Your task to perform on an android device: Open notification settings Image 0: 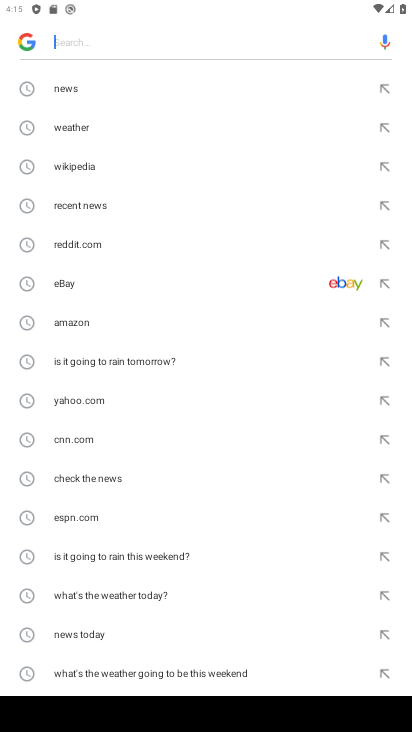
Step 0: press home button
Your task to perform on an android device: Open notification settings Image 1: 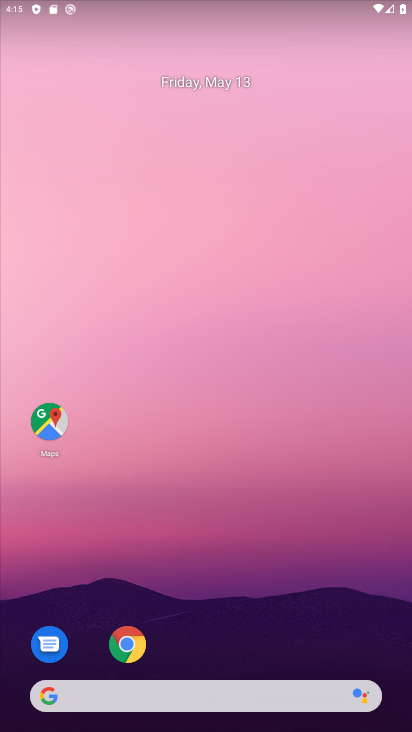
Step 1: drag from (180, 595) to (307, 119)
Your task to perform on an android device: Open notification settings Image 2: 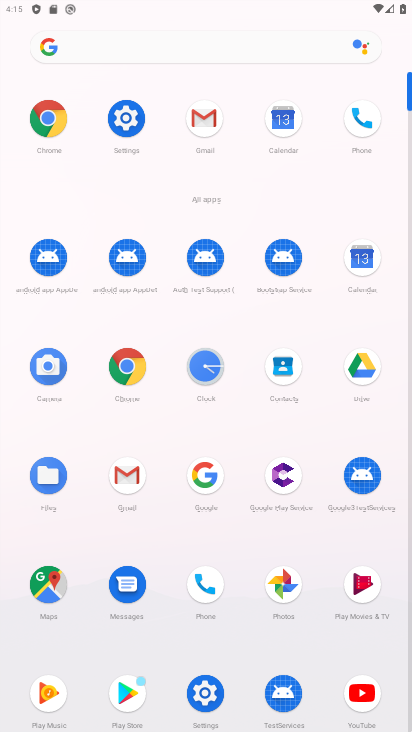
Step 2: click (136, 121)
Your task to perform on an android device: Open notification settings Image 3: 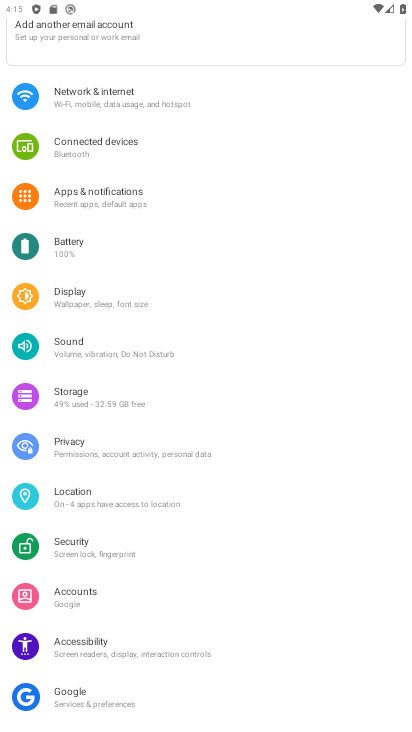
Step 3: click (124, 188)
Your task to perform on an android device: Open notification settings Image 4: 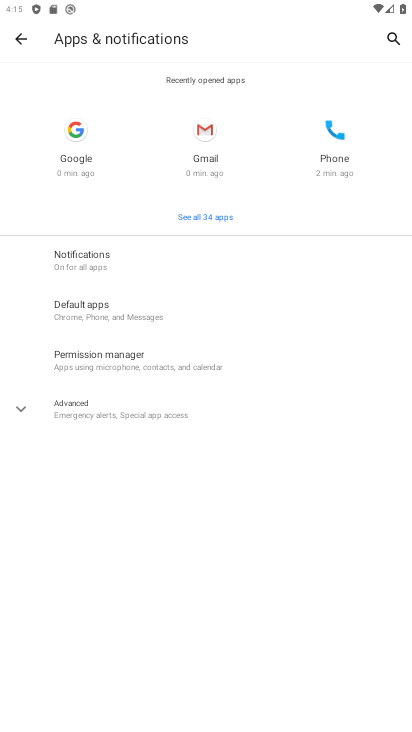
Step 4: click (106, 256)
Your task to perform on an android device: Open notification settings Image 5: 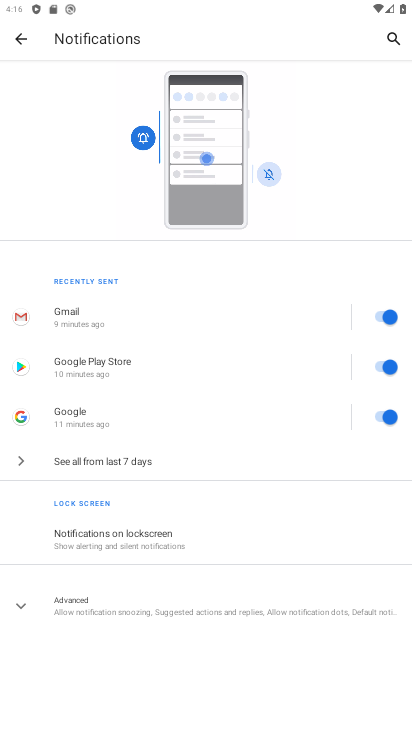
Step 5: task complete